Your task to perform on an android device: Show the shopping cart on bestbuy.com. Add "corsair k70" to the cart on bestbuy.com, then select checkout. Image 0: 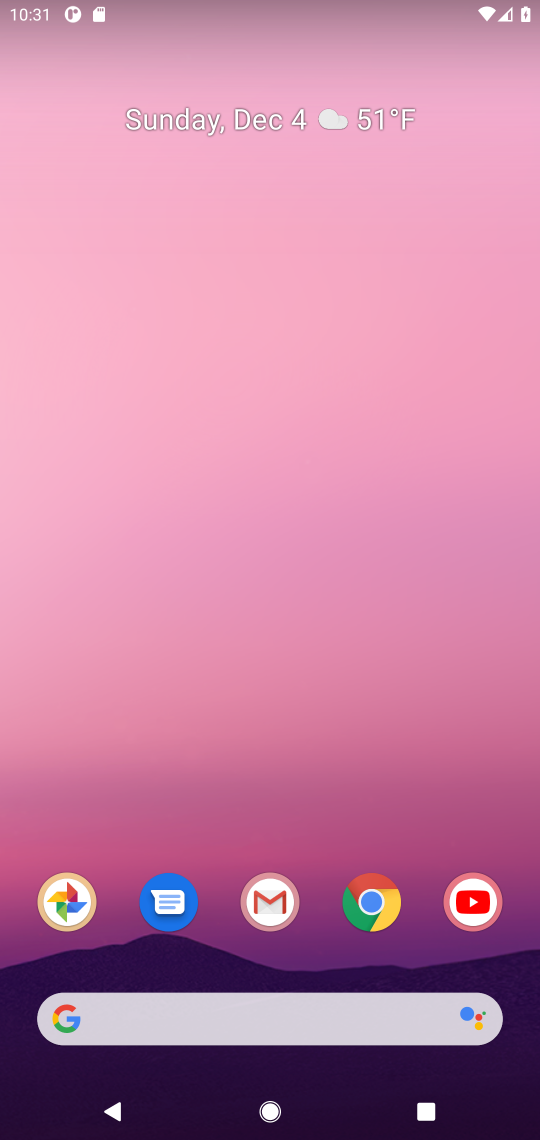
Step 0: click (382, 882)
Your task to perform on an android device: Show the shopping cart on bestbuy.com. Add "corsair k70" to the cart on bestbuy.com, then select checkout. Image 1: 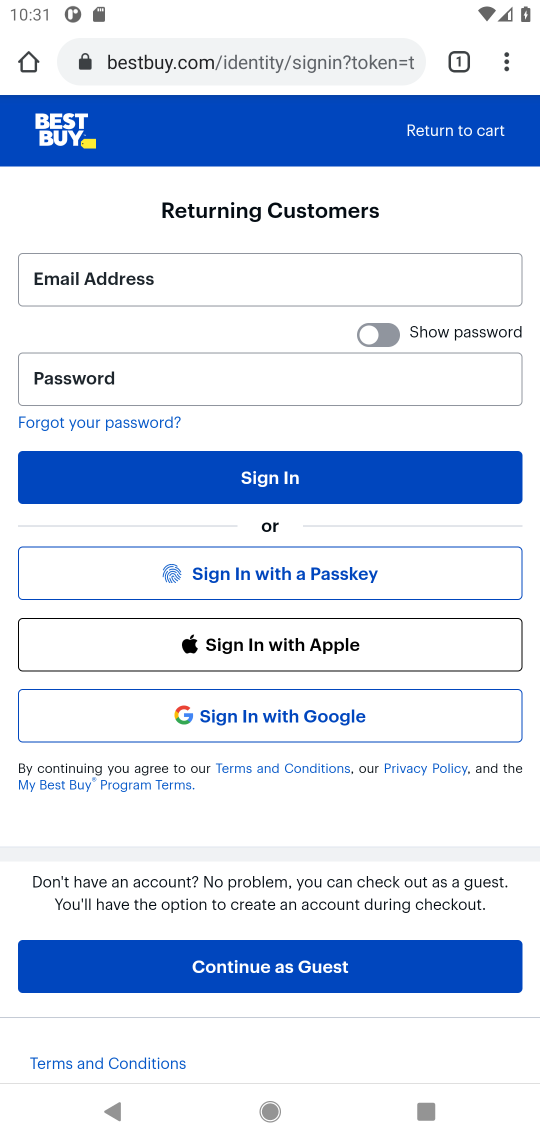
Step 1: click (489, 123)
Your task to perform on an android device: Show the shopping cart on bestbuy.com. Add "corsair k70" to the cart on bestbuy.com, then select checkout. Image 2: 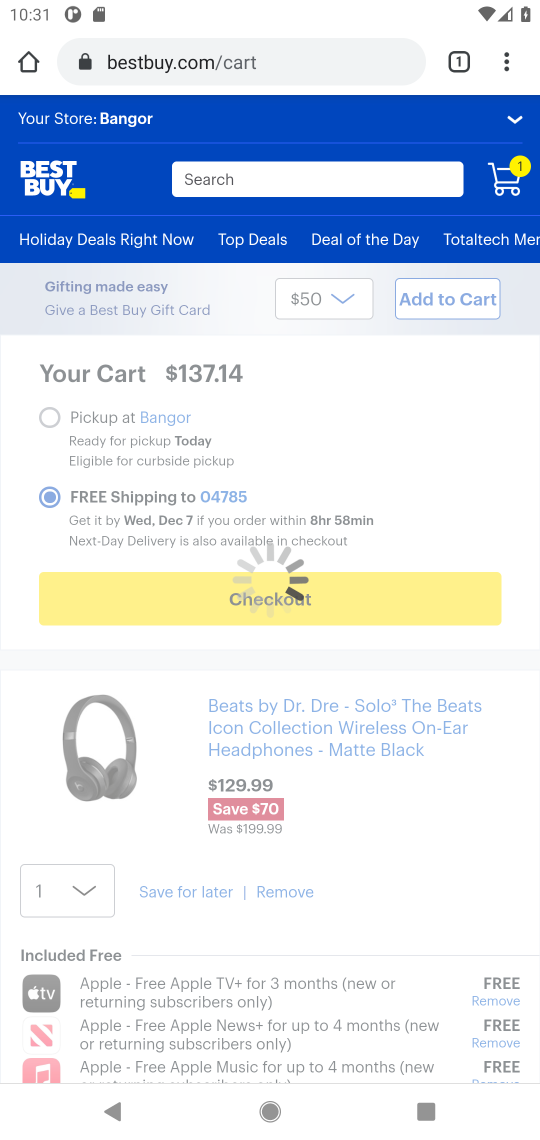
Step 2: click (517, 197)
Your task to perform on an android device: Show the shopping cart on bestbuy.com. Add "corsair k70" to the cart on bestbuy.com, then select checkout. Image 3: 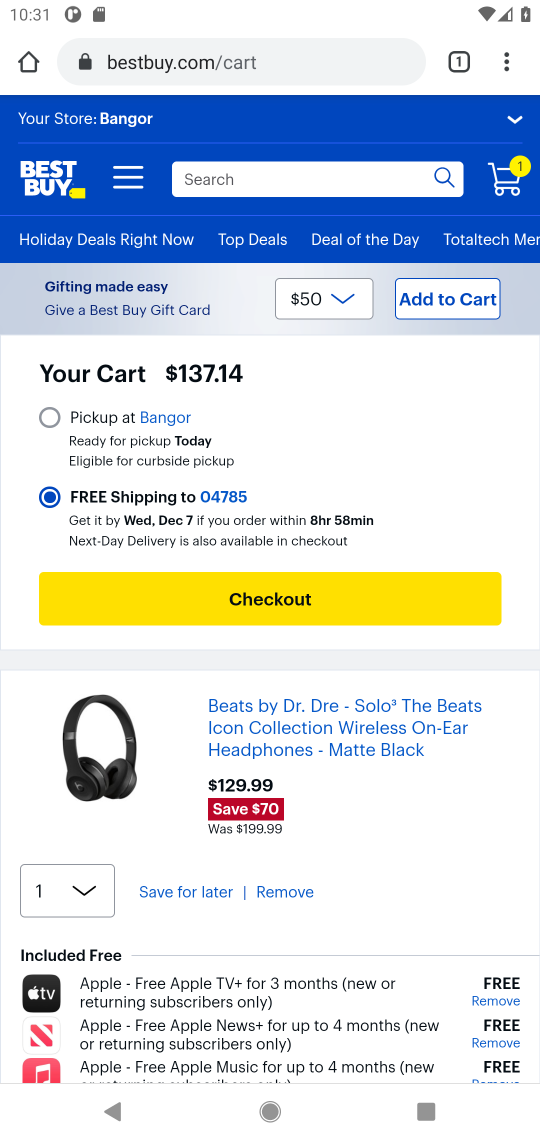
Step 3: click (267, 185)
Your task to perform on an android device: Show the shopping cart on bestbuy.com. Add "corsair k70" to the cart on bestbuy.com, then select checkout. Image 4: 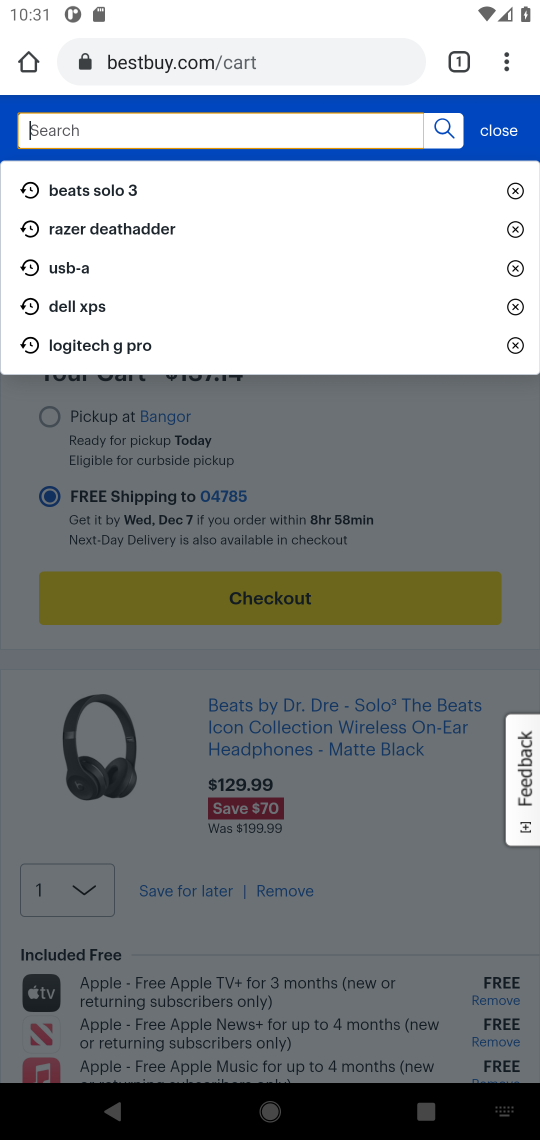
Step 4: type "corsair k70"
Your task to perform on an android device: Show the shopping cart on bestbuy.com. Add "corsair k70" to the cart on bestbuy.com, then select checkout. Image 5: 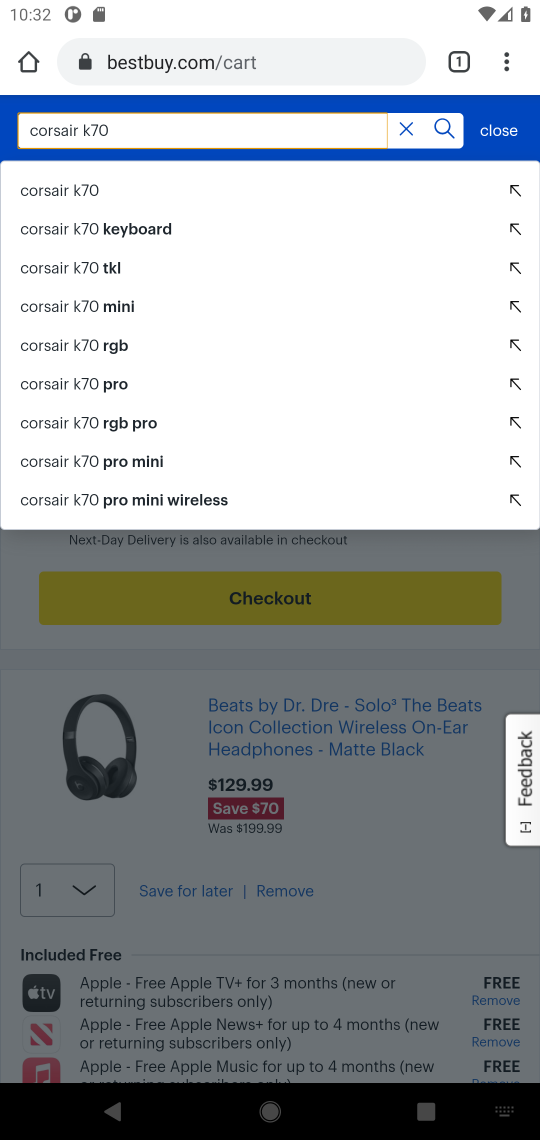
Step 5: click (439, 127)
Your task to perform on an android device: Show the shopping cart on bestbuy.com. Add "corsair k70" to the cart on bestbuy.com, then select checkout. Image 6: 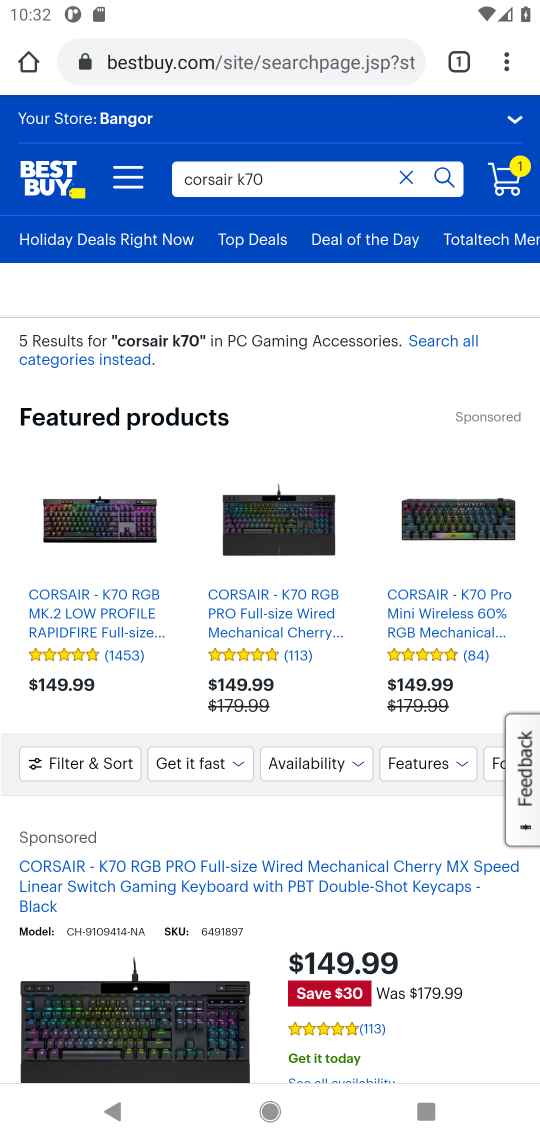
Step 6: drag from (369, 908) to (378, 338)
Your task to perform on an android device: Show the shopping cart on bestbuy.com. Add "corsair k70" to the cart on bestbuy.com, then select checkout. Image 7: 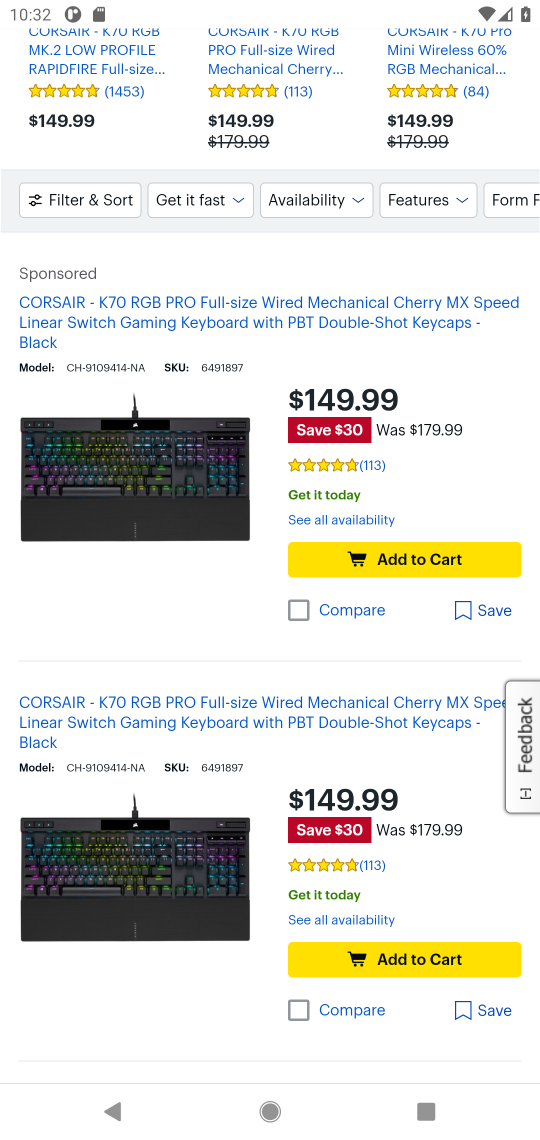
Step 7: click (422, 958)
Your task to perform on an android device: Show the shopping cart on bestbuy.com. Add "corsair k70" to the cart on bestbuy.com, then select checkout. Image 8: 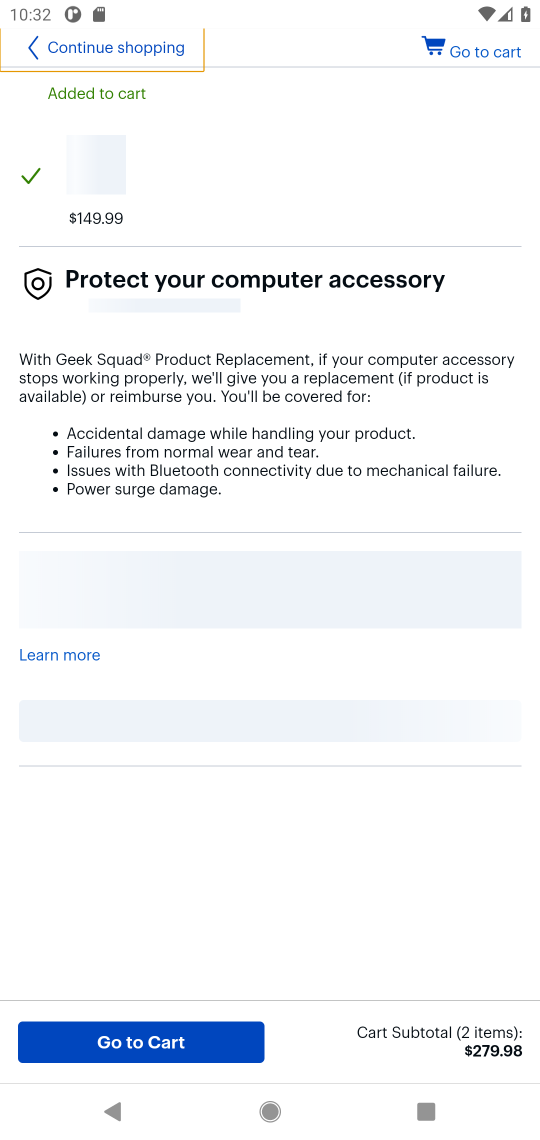
Step 8: click (468, 43)
Your task to perform on an android device: Show the shopping cart on bestbuy.com. Add "corsair k70" to the cart on bestbuy.com, then select checkout. Image 9: 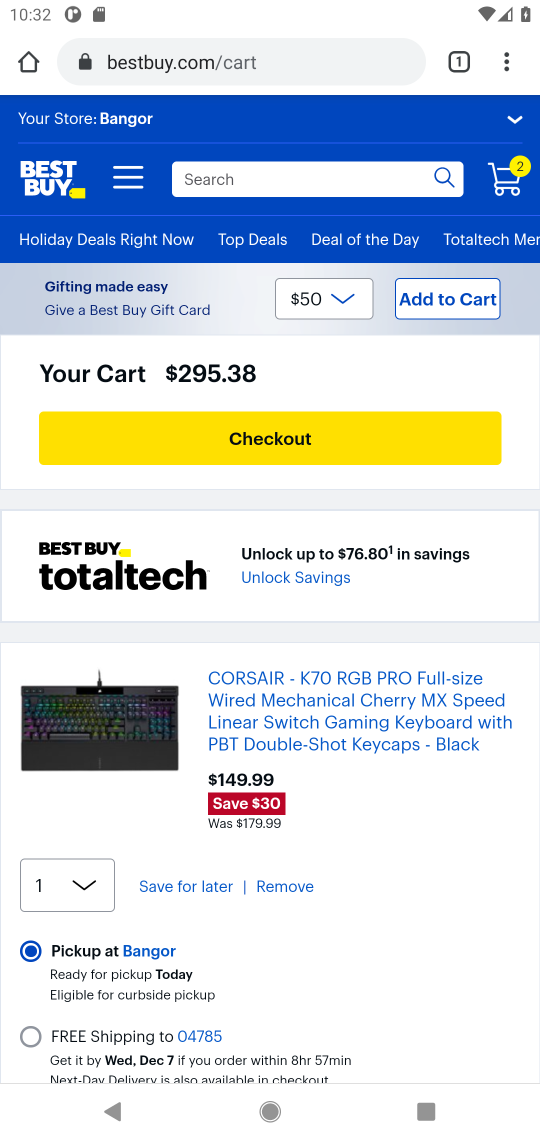
Step 9: click (390, 451)
Your task to perform on an android device: Show the shopping cart on bestbuy.com. Add "corsair k70" to the cart on bestbuy.com, then select checkout. Image 10: 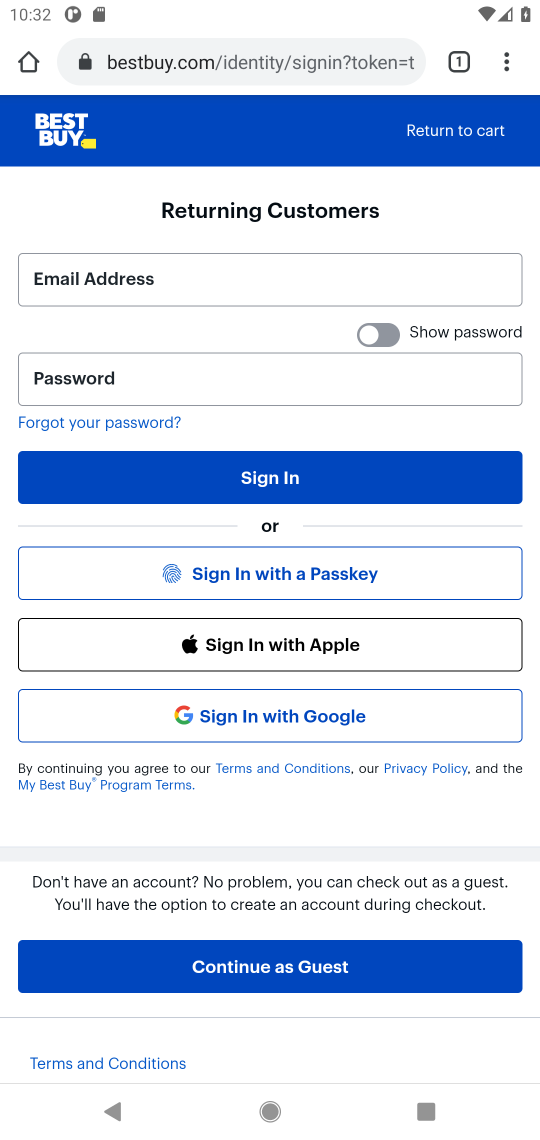
Step 10: task complete